Your task to perform on an android device: Show the shopping cart on ebay. Add usb-a to the cart on ebay, then select checkout. Image 0: 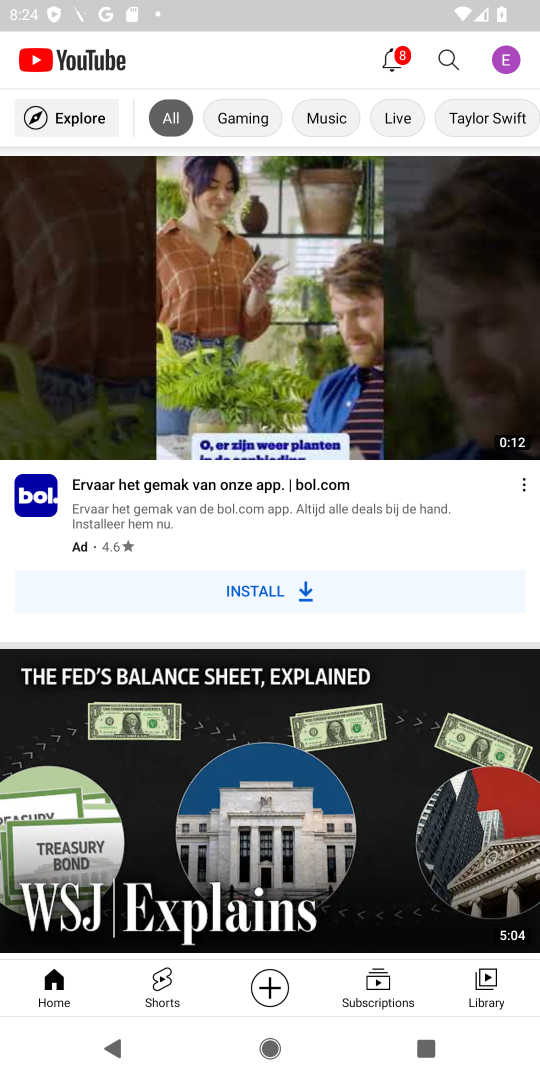
Step 0: press home button
Your task to perform on an android device: Show the shopping cart on ebay. Add usb-a to the cart on ebay, then select checkout. Image 1: 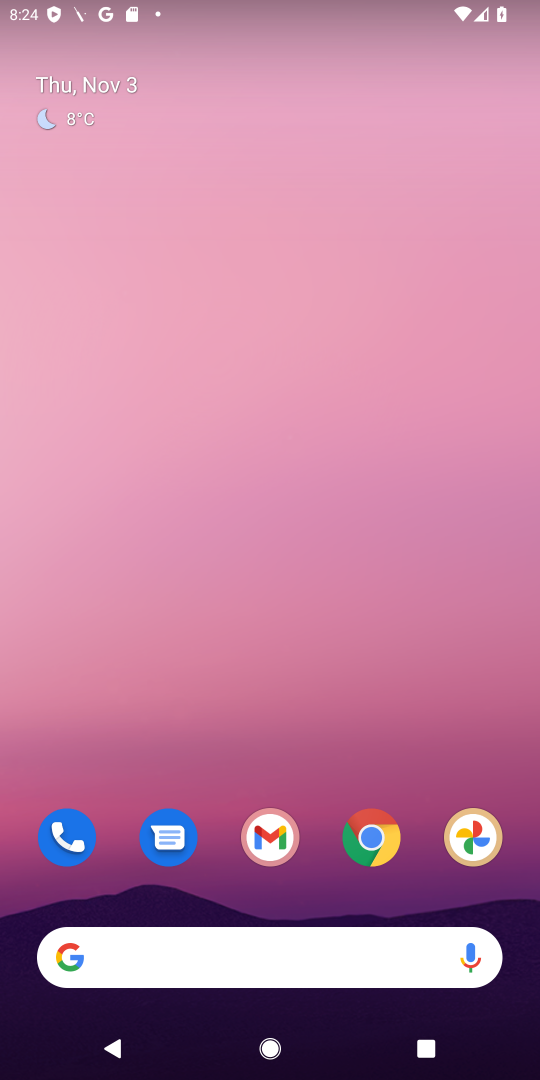
Step 1: click (372, 852)
Your task to perform on an android device: Show the shopping cart on ebay. Add usb-a to the cart on ebay, then select checkout. Image 2: 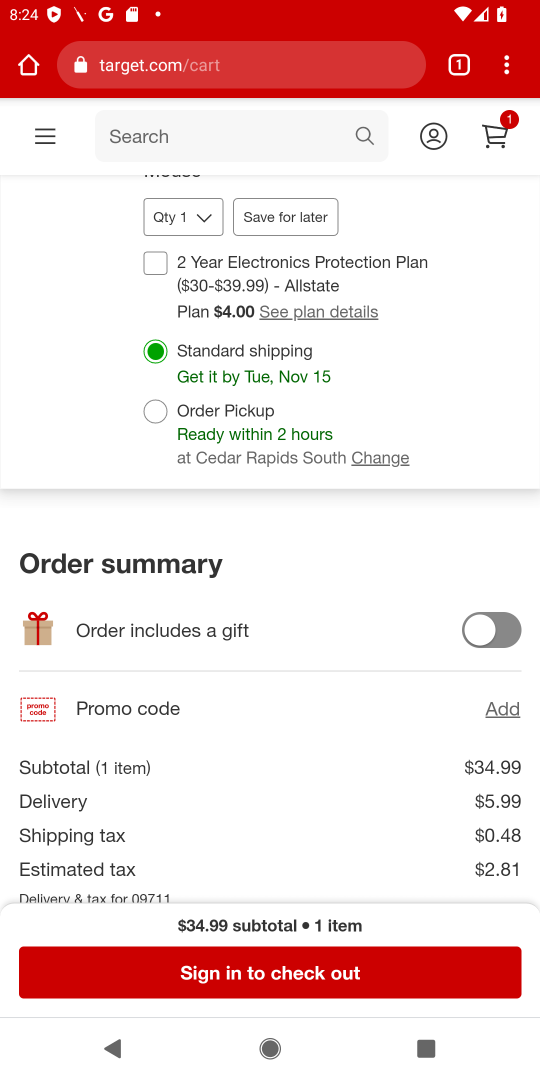
Step 2: click (250, 72)
Your task to perform on an android device: Show the shopping cart on ebay. Add usb-a to the cart on ebay, then select checkout. Image 3: 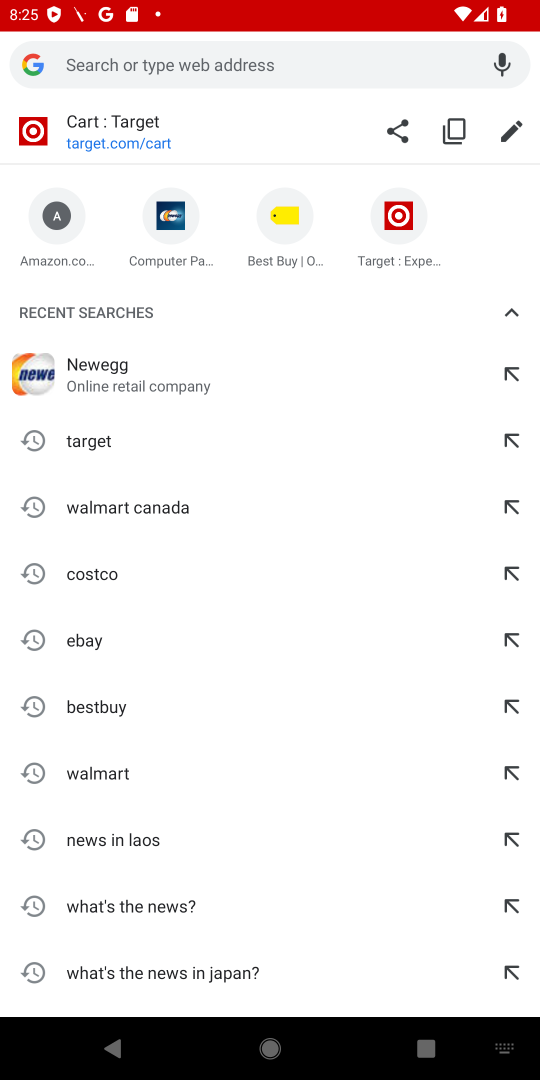
Step 3: click (73, 642)
Your task to perform on an android device: Show the shopping cart on ebay. Add usb-a to the cart on ebay, then select checkout. Image 4: 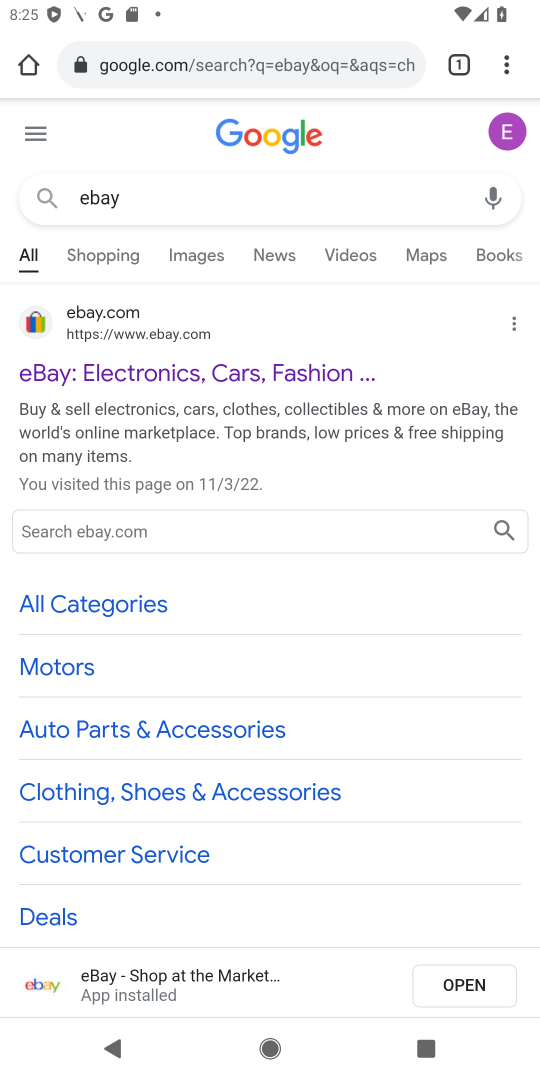
Step 4: click (167, 378)
Your task to perform on an android device: Show the shopping cart on ebay. Add usb-a to the cart on ebay, then select checkout. Image 5: 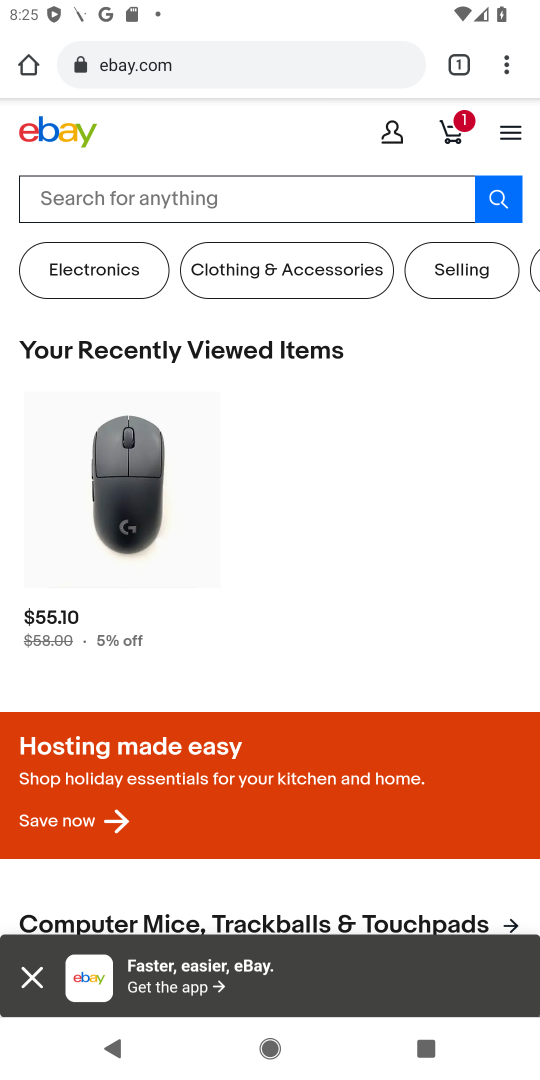
Step 5: click (146, 198)
Your task to perform on an android device: Show the shopping cart on ebay. Add usb-a to the cart on ebay, then select checkout. Image 6: 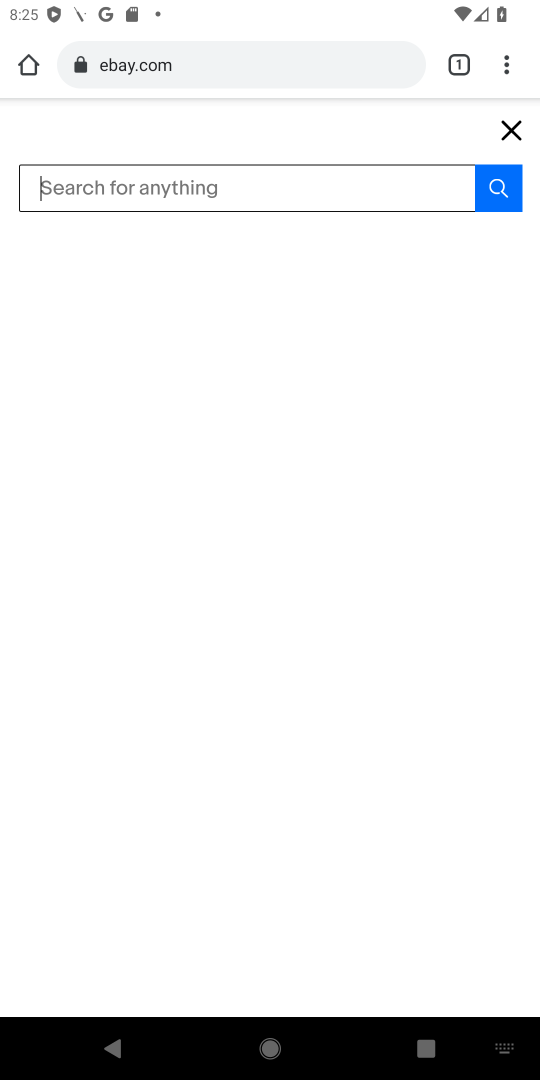
Step 6: type "usb-a "
Your task to perform on an android device: Show the shopping cart on ebay. Add usb-a to the cart on ebay, then select checkout. Image 7: 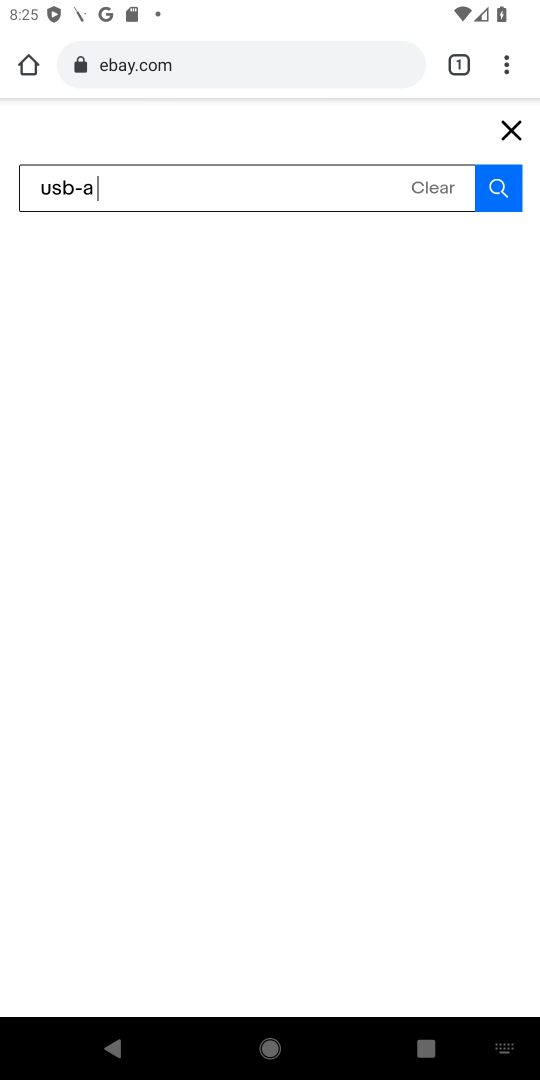
Step 7: press enter
Your task to perform on an android device: Show the shopping cart on ebay. Add usb-a to the cart on ebay, then select checkout. Image 8: 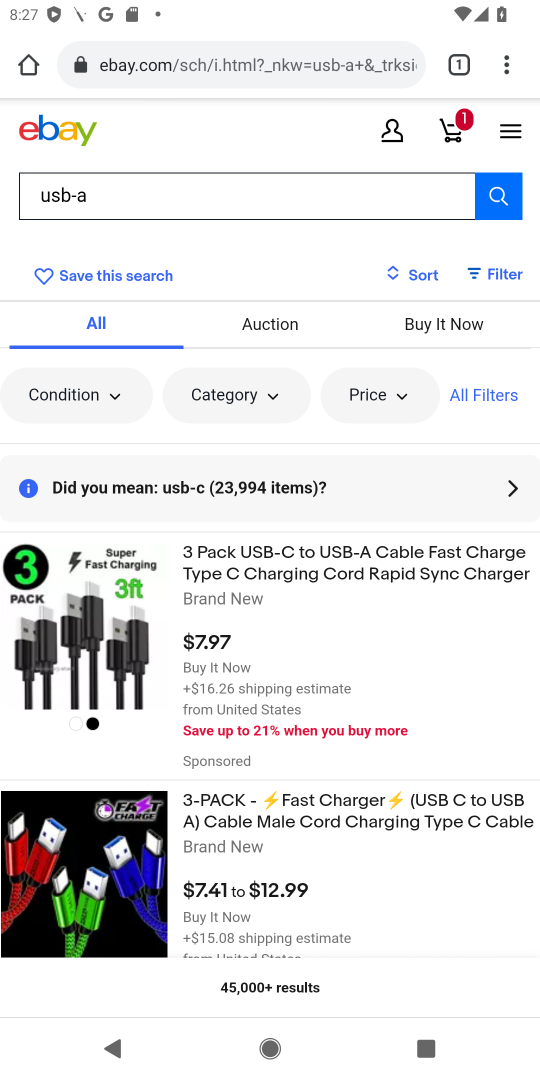
Step 8: task complete